Your task to perform on an android device: turn notification dots off Image 0: 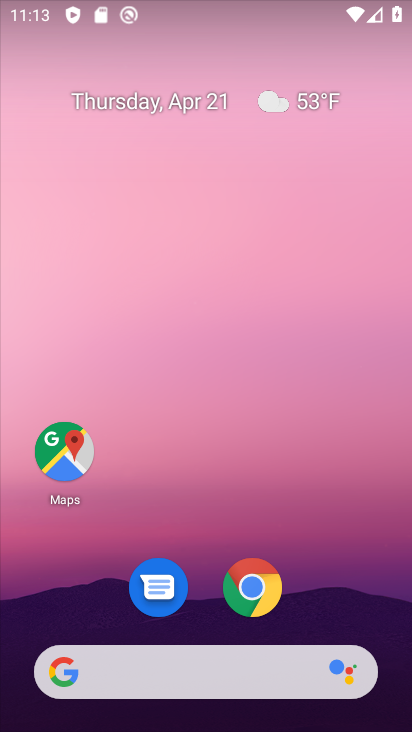
Step 0: press back button
Your task to perform on an android device: turn notification dots off Image 1: 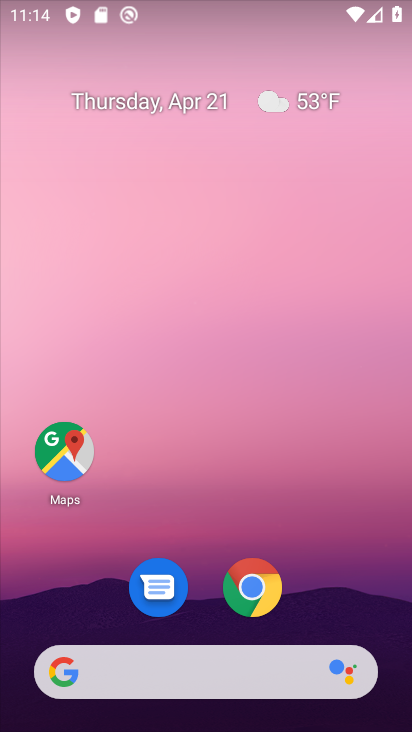
Step 1: drag from (201, 622) to (254, 107)
Your task to perform on an android device: turn notification dots off Image 2: 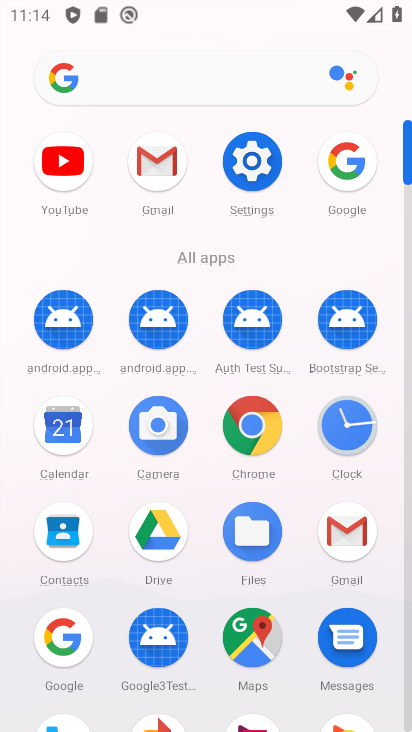
Step 2: click (260, 141)
Your task to perform on an android device: turn notification dots off Image 3: 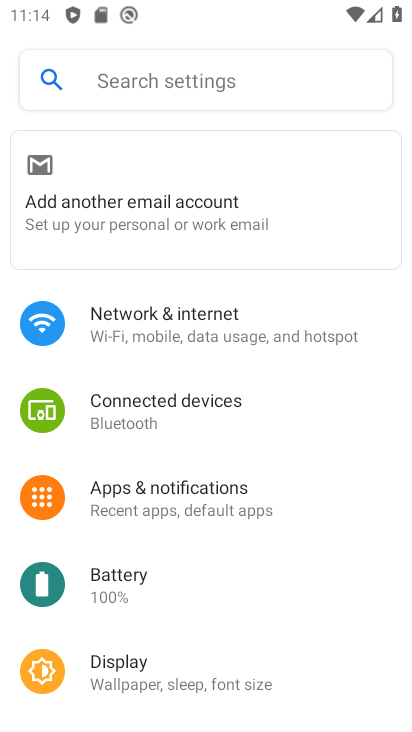
Step 3: click (179, 496)
Your task to perform on an android device: turn notification dots off Image 4: 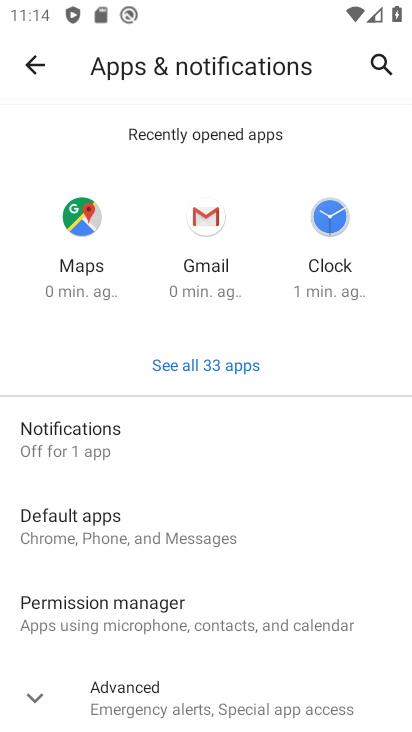
Step 4: click (126, 432)
Your task to perform on an android device: turn notification dots off Image 5: 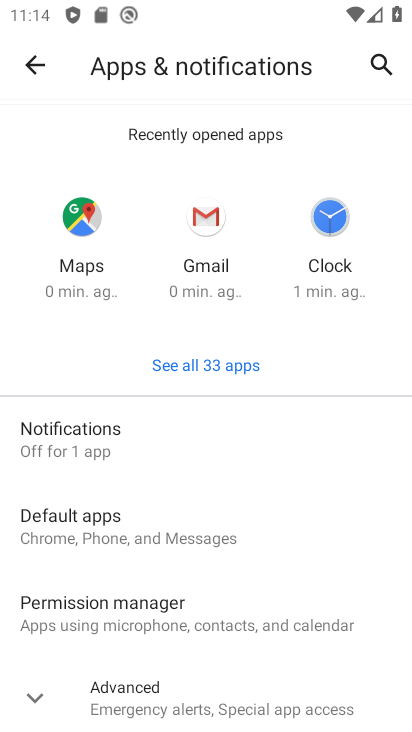
Step 5: drag from (212, 627) to (291, 139)
Your task to perform on an android device: turn notification dots off Image 6: 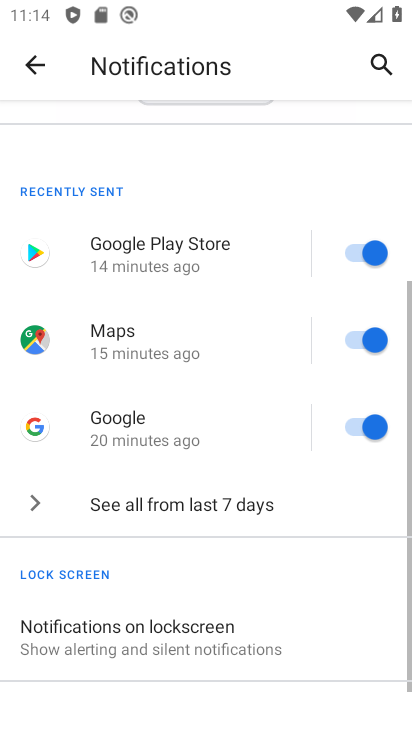
Step 6: drag from (199, 616) to (240, 123)
Your task to perform on an android device: turn notification dots off Image 7: 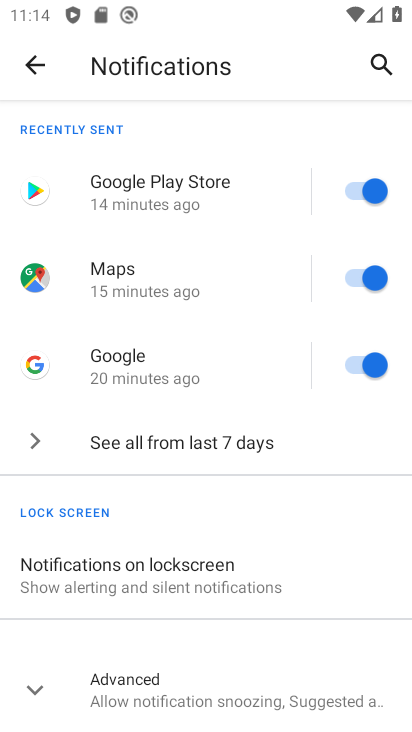
Step 7: click (196, 687)
Your task to perform on an android device: turn notification dots off Image 8: 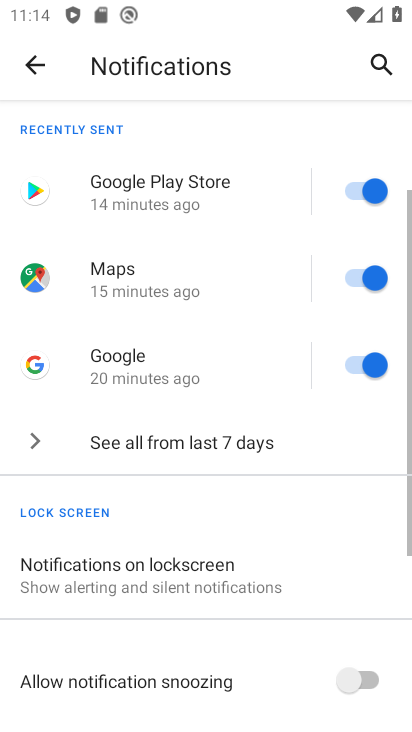
Step 8: drag from (224, 632) to (256, 171)
Your task to perform on an android device: turn notification dots off Image 9: 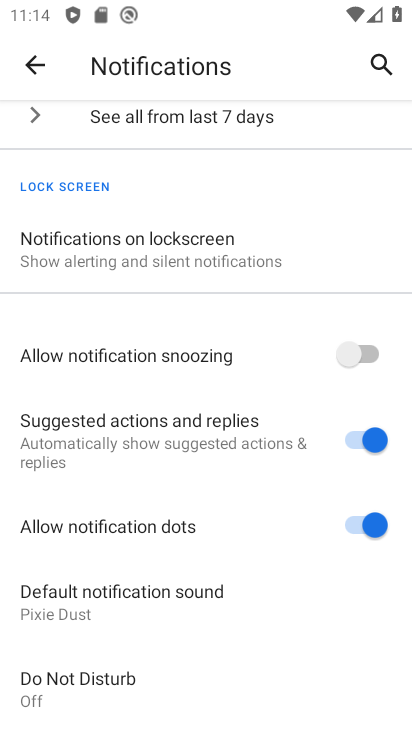
Step 9: click (366, 529)
Your task to perform on an android device: turn notification dots off Image 10: 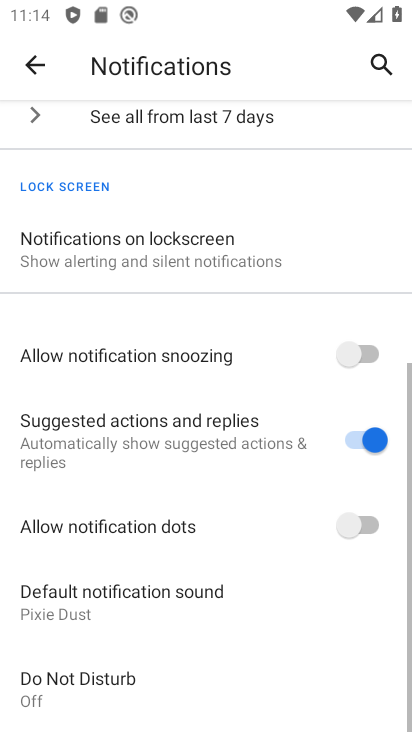
Step 10: task complete